Your task to perform on an android device: turn off smart reply in the gmail app Image 0: 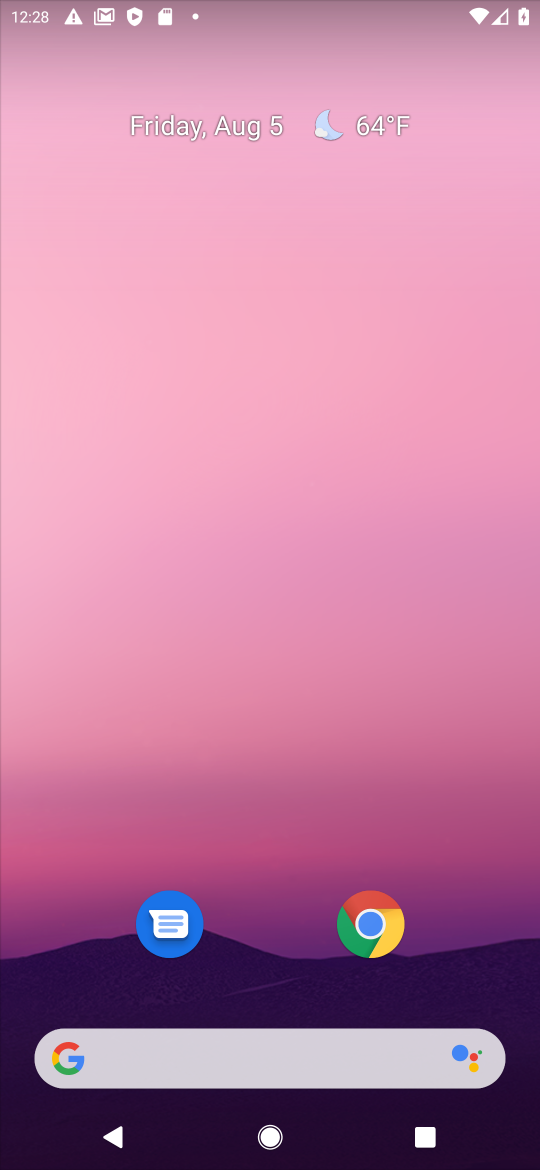
Step 0: drag from (243, 666) to (156, 195)
Your task to perform on an android device: turn off smart reply in the gmail app Image 1: 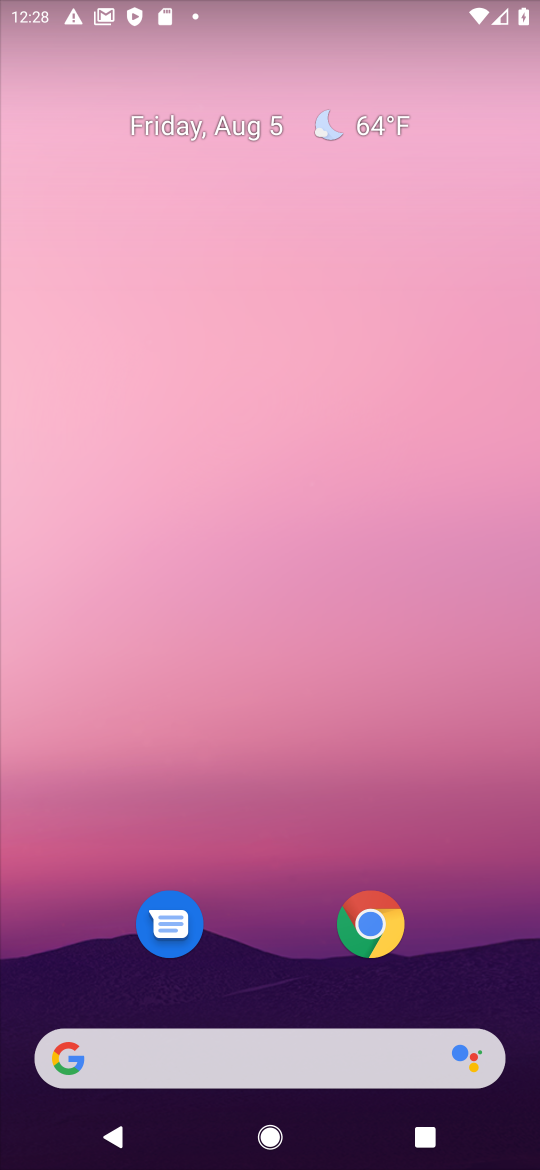
Step 1: drag from (256, 884) to (242, 187)
Your task to perform on an android device: turn off smart reply in the gmail app Image 2: 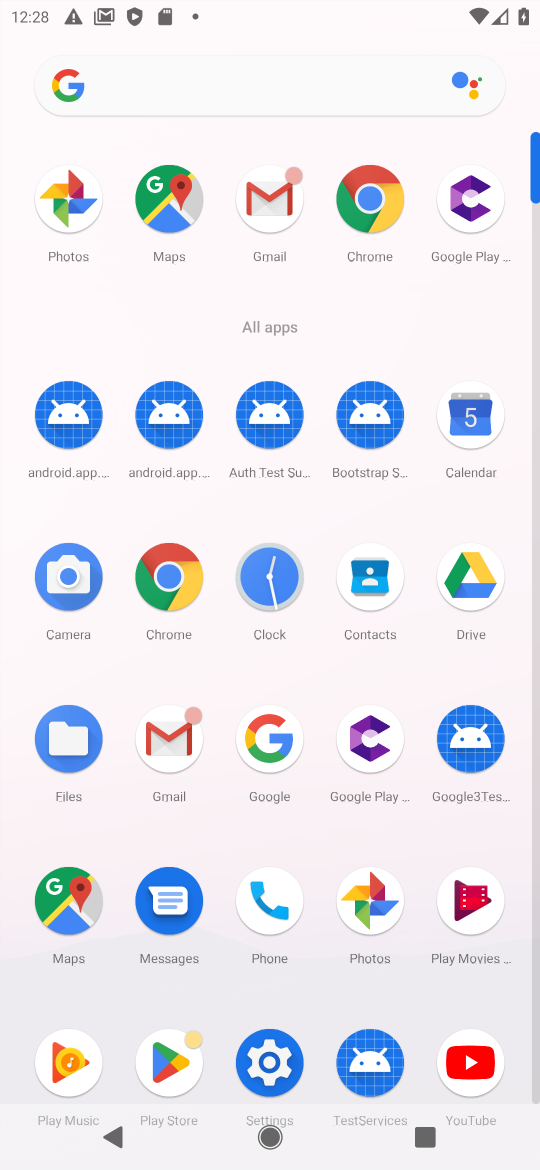
Step 2: click (265, 222)
Your task to perform on an android device: turn off smart reply in the gmail app Image 3: 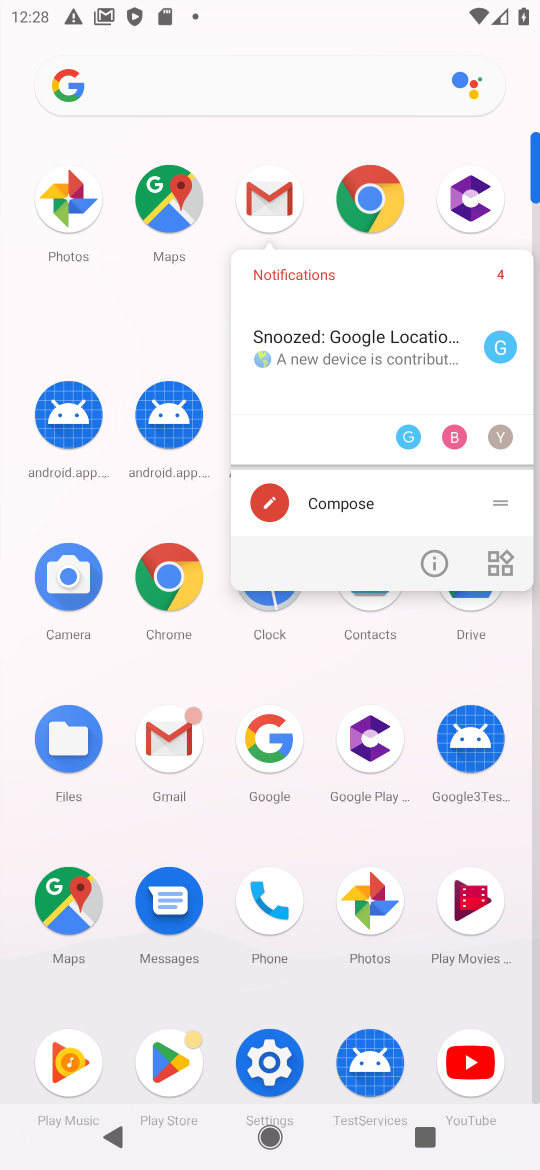
Step 3: click (259, 214)
Your task to perform on an android device: turn off smart reply in the gmail app Image 4: 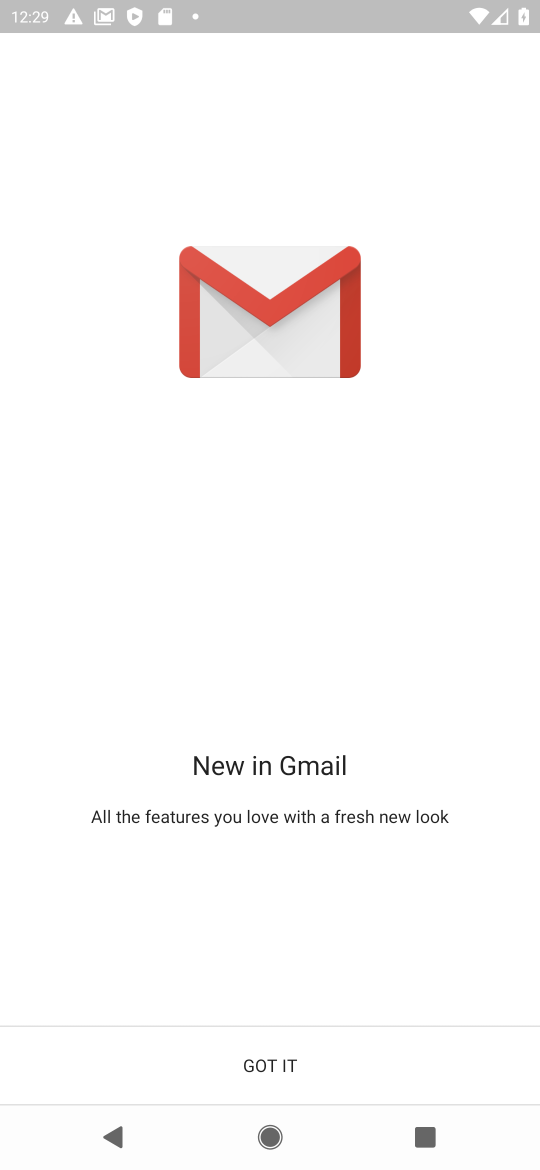
Step 4: click (263, 1051)
Your task to perform on an android device: turn off smart reply in the gmail app Image 5: 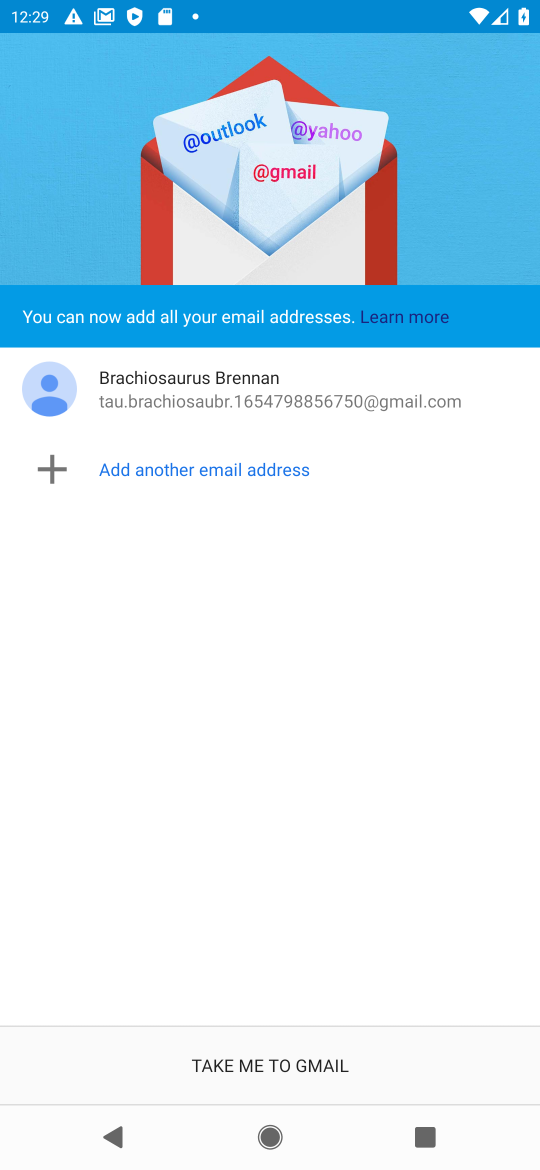
Step 5: click (263, 1051)
Your task to perform on an android device: turn off smart reply in the gmail app Image 6: 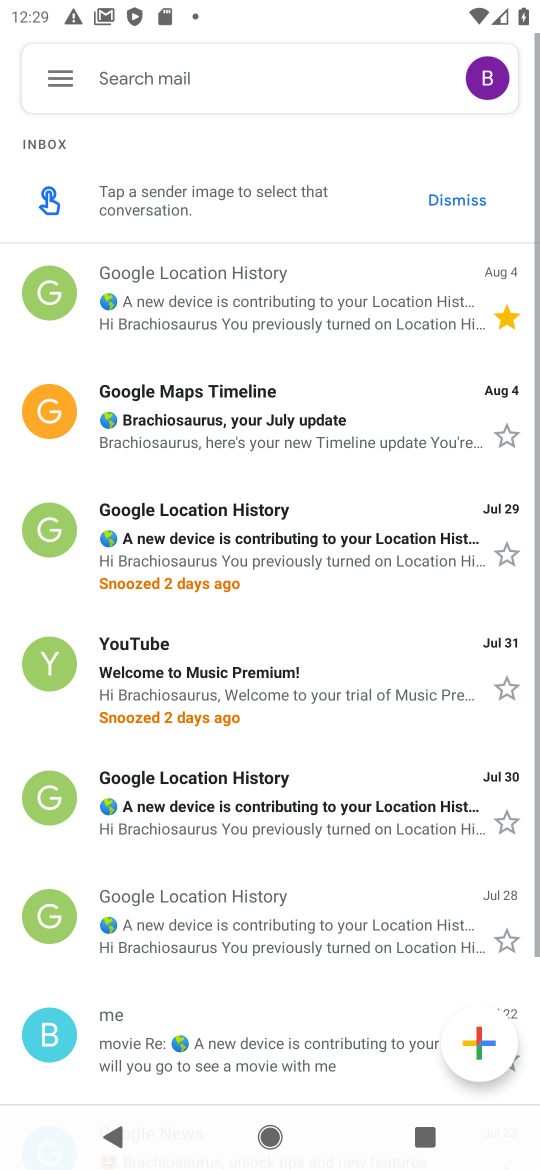
Step 6: click (57, 83)
Your task to perform on an android device: turn off smart reply in the gmail app Image 7: 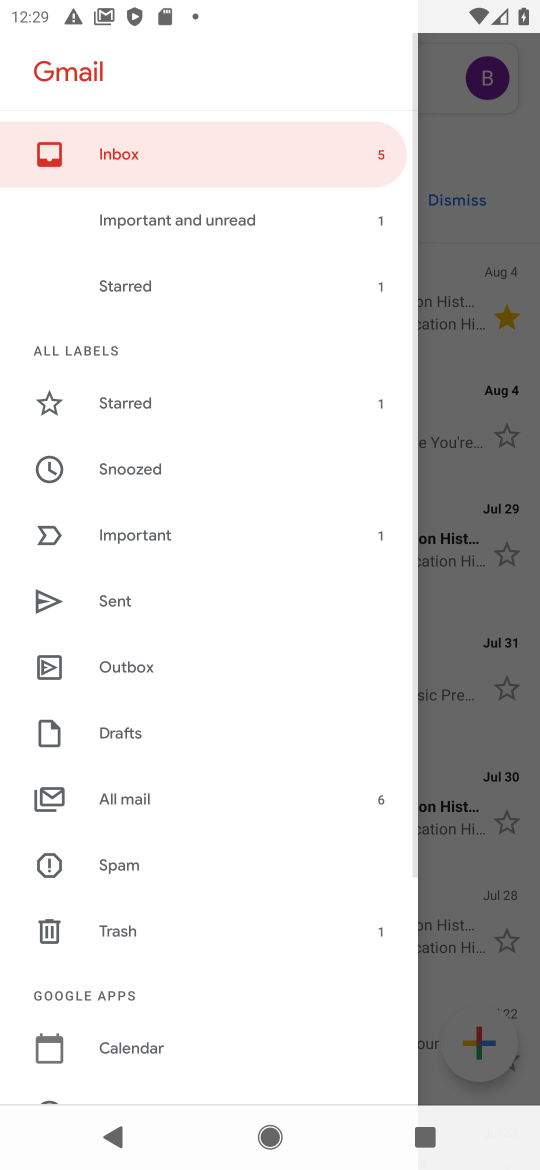
Step 7: drag from (249, 996) to (249, 329)
Your task to perform on an android device: turn off smart reply in the gmail app Image 8: 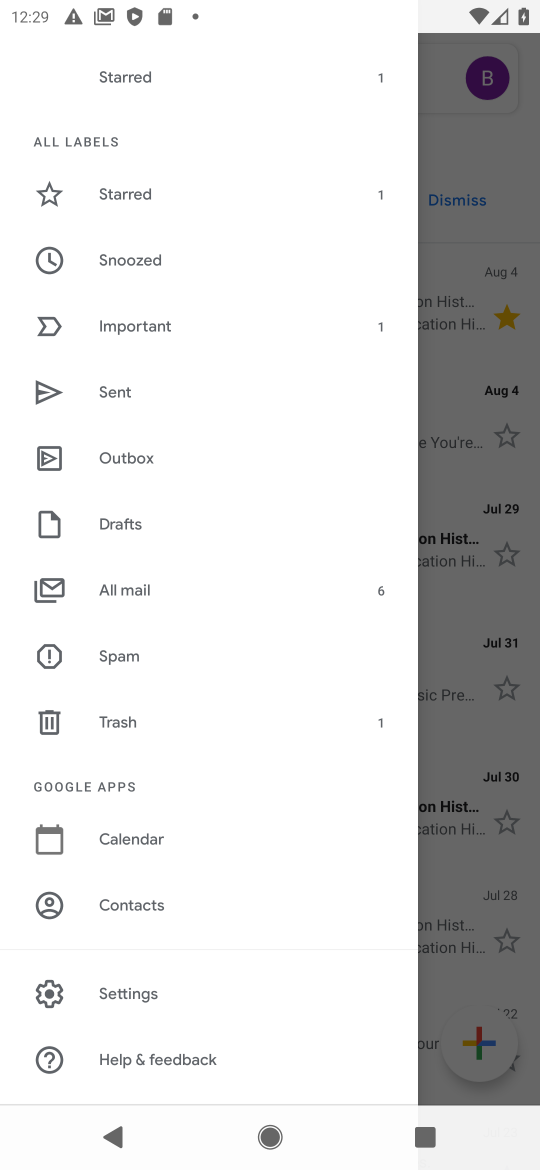
Step 8: click (125, 986)
Your task to perform on an android device: turn off smart reply in the gmail app Image 9: 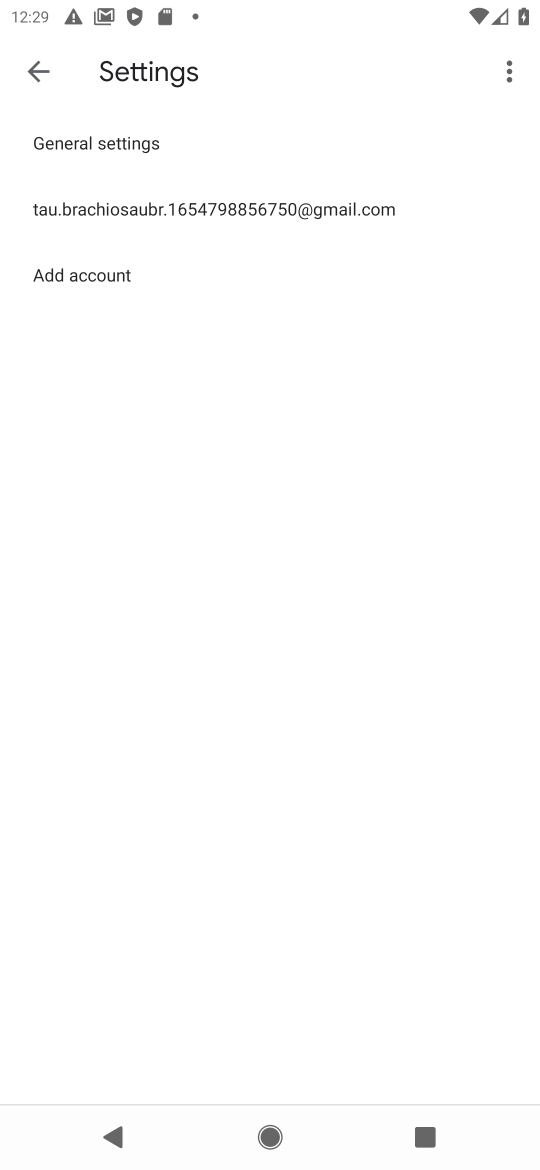
Step 9: click (207, 206)
Your task to perform on an android device: turn off smart reply in the gmail app Image 10: 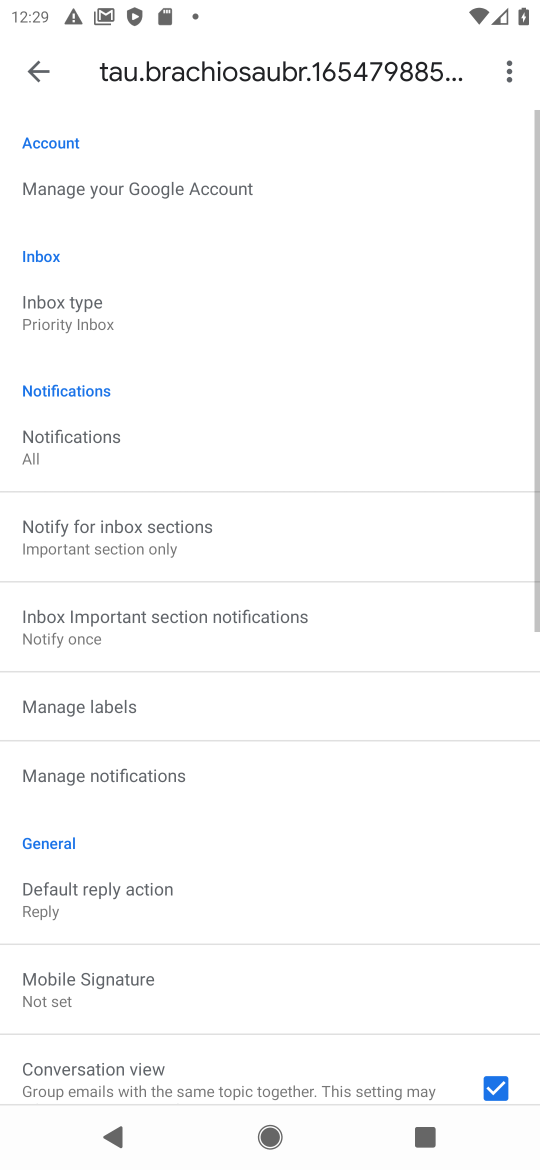
Step 10: drag from (323, 1013) to (345, 112)
Your task to perform on an android device: turn off smart reply in the gmail app Image 11: 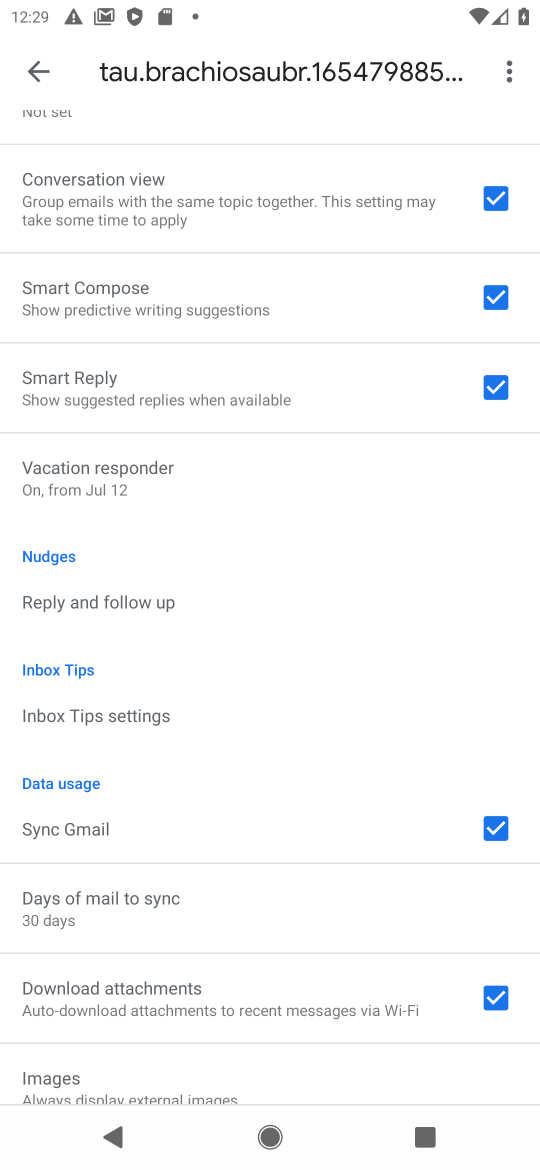
Step 11: drag from (390, 835) to (373, 471)
Your task to perform on an android device: turn off smart reply in the gmail app Image 12: 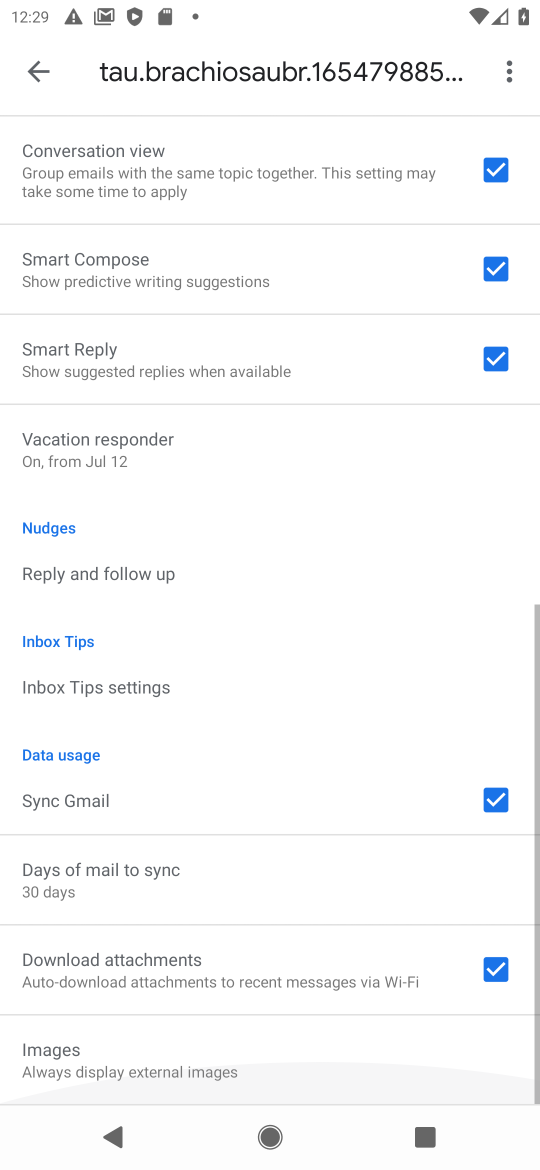
Step 12: click (507, 347)
Your task to perform on an android device: turn off smart reply in the gmail app Image 13: 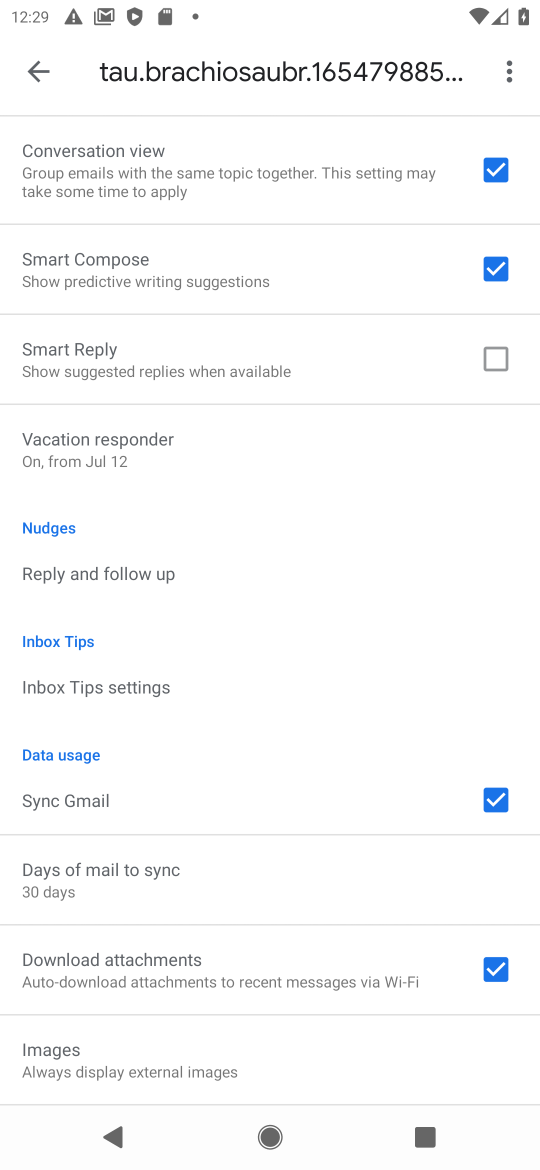
Step 13: task complete